Your task to perform on an android device: find photos in the google photos app Image 0: 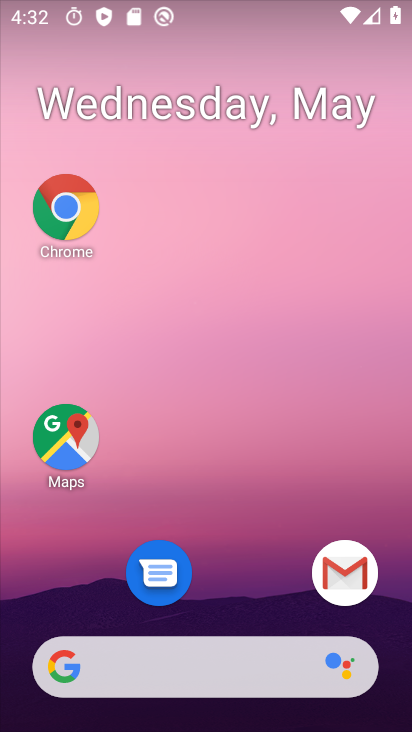
Step 0: drag from (283, 687) to (309, 18)
Your task to perform on an android device: find photos in the google photos app Image 1: 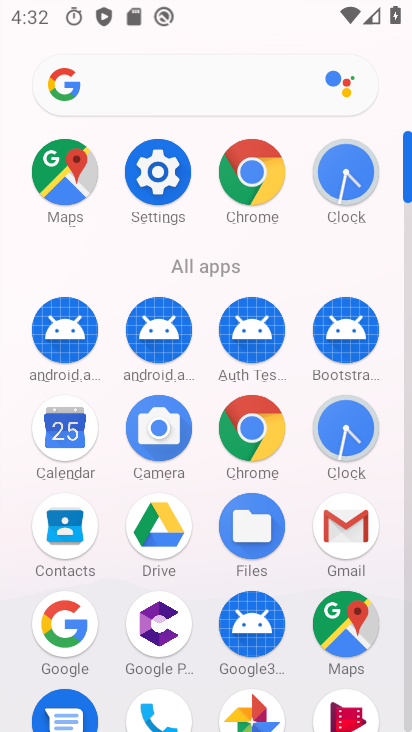
Step 1: drag from (212, 405) to (250, 349)
Your task to perform on an android device: find photos in the google photos app Image 2: 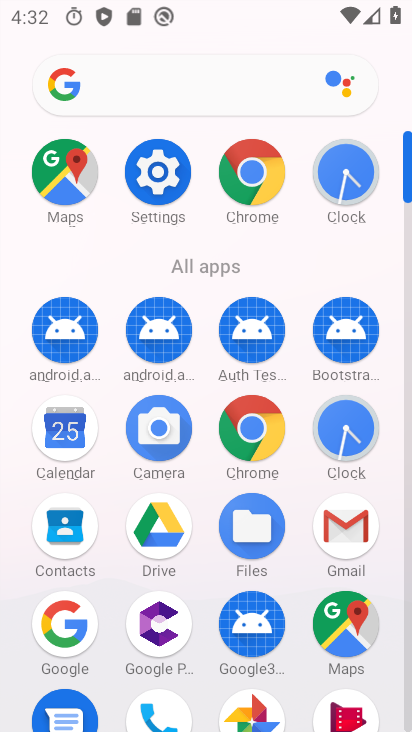
Step 2: drag from (274, 454) to (266, 371)
Your task to perform on an android device: find photos in the google photos app Image 3: 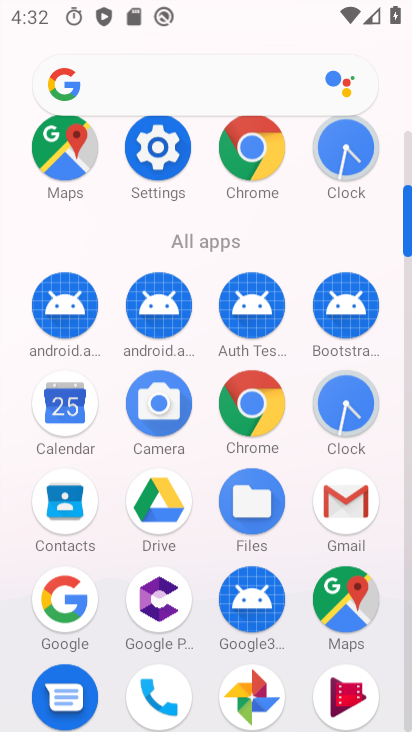
Step 3: drag from (295, 521) to (247, 317)
Your task to perform on an android device: find photos in the google photos app Image 4: 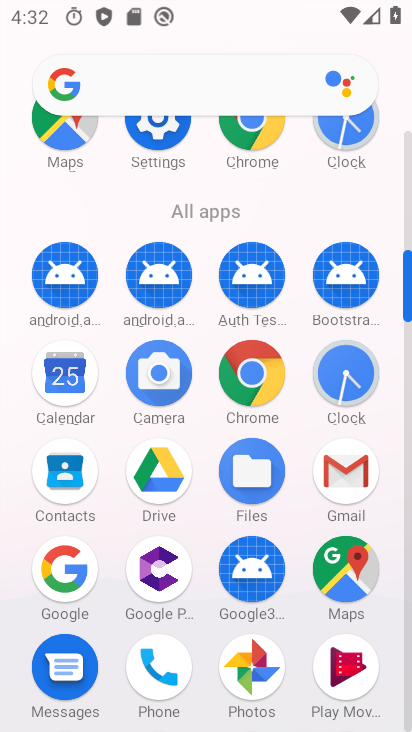
Step 4: click (253, 697)
Your task to perform on an android device: find photos in the google photos app Image 5: 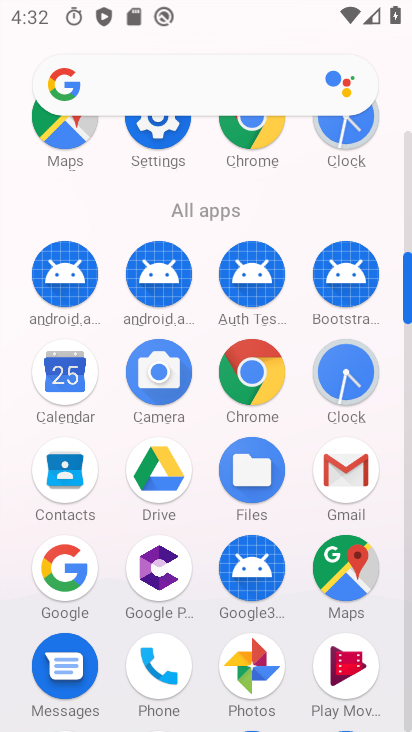
Step 5: click (227, 668)
Your task to perform on an android device: find photos in the google photos app Image 6: 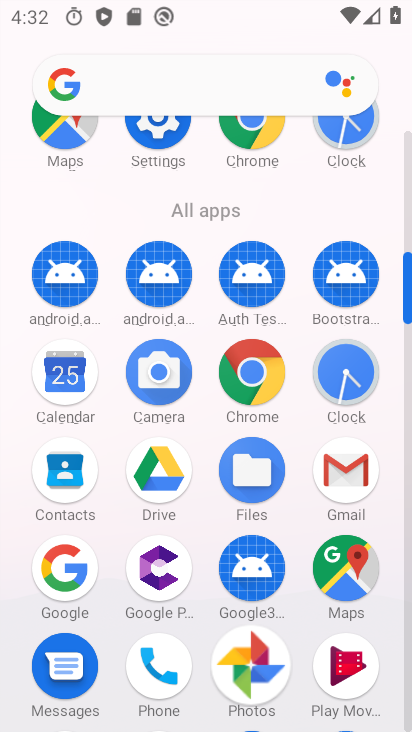
Step 6: click (235, 653)
Your task to perform on an android device: find photos in the google photos app Image 7: 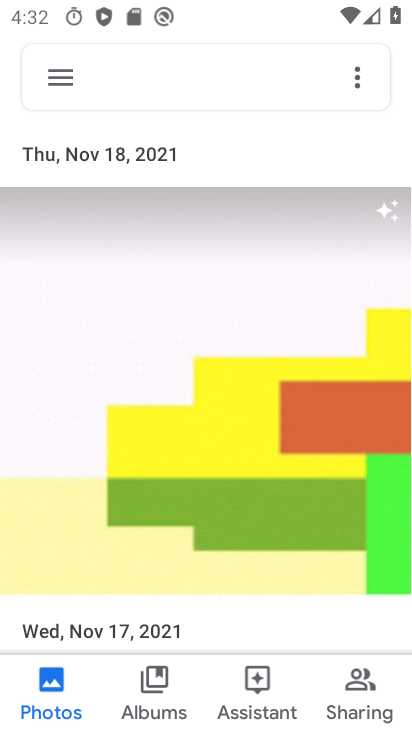
Step 7: click (241, 652)
Your task to perform on an android device: find photos in the google photos app Image 8: 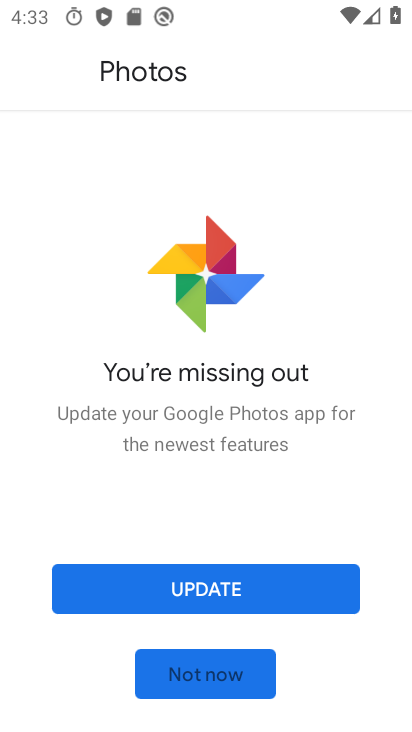
Step 8: click (222, 678)
Your task to perform on an android device: find photos in the google photos app Image 9: 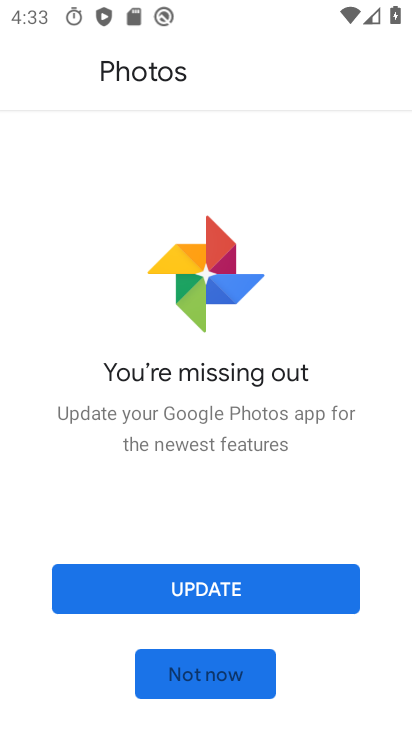
Step 9: click (222, 678)
Your task to perform on an android device: find photos in the google photos app Image 10: 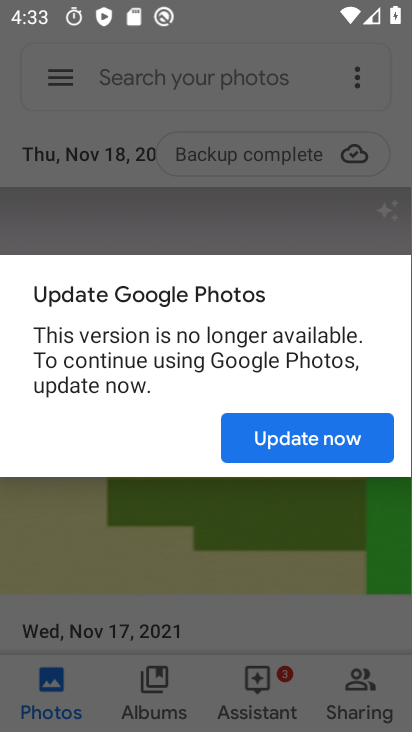
Step 10: click (222, 678)
Your task to perform on an android device: find photos in the google photos app Image 11: 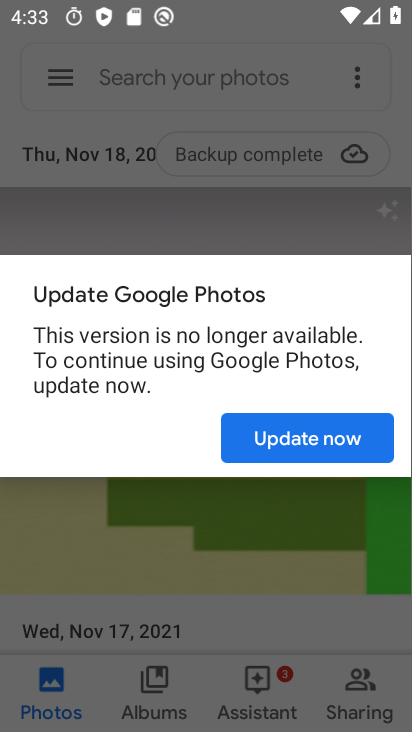
Step 11: click (222, 676)
Your task to perform on an android device: find photos in the google photos app Image 12: 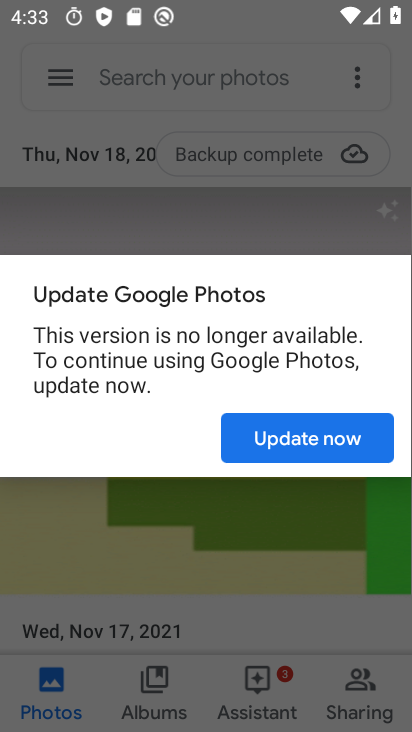
Step 12: click (301, 444)
Your task to perform on an android device: find photos in the google photos app Image 13: 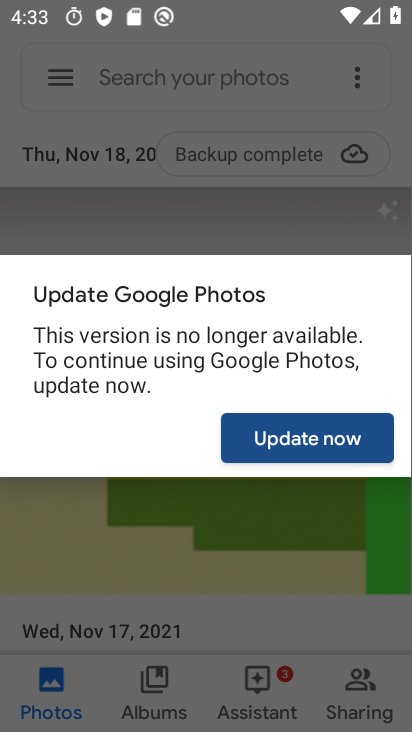
Step 13: click (321, 443)
Your task to perform on an android device: find photos in the google photos app Image 14: 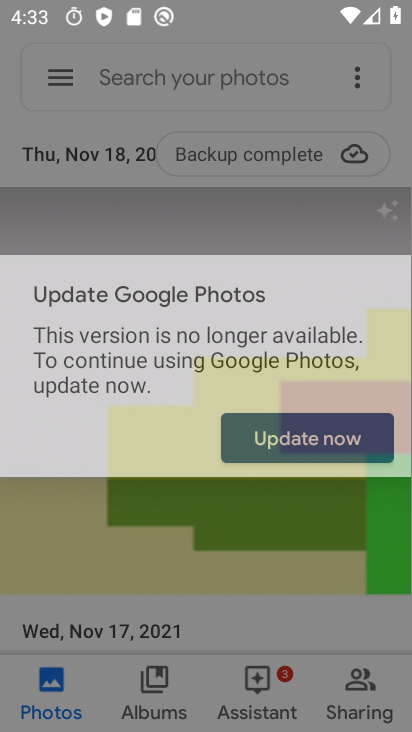
Step 14: click (320, 441)
Your task to perform on an android device: find photos in the google photos app Image 15: 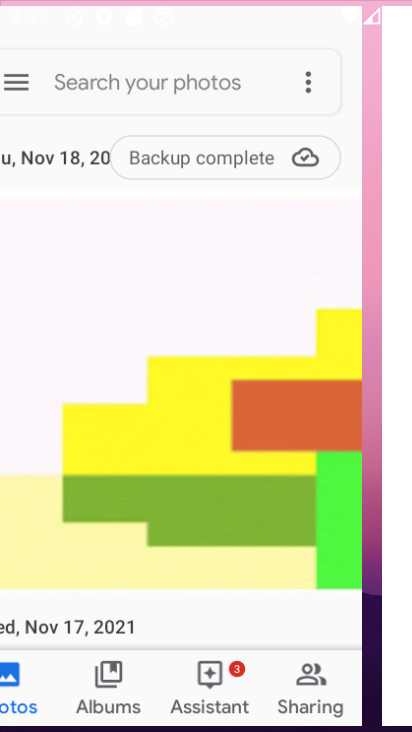
Step 15: click (316, 426)
Your task to perform on an android device: find photos in the google photos app Image 16: 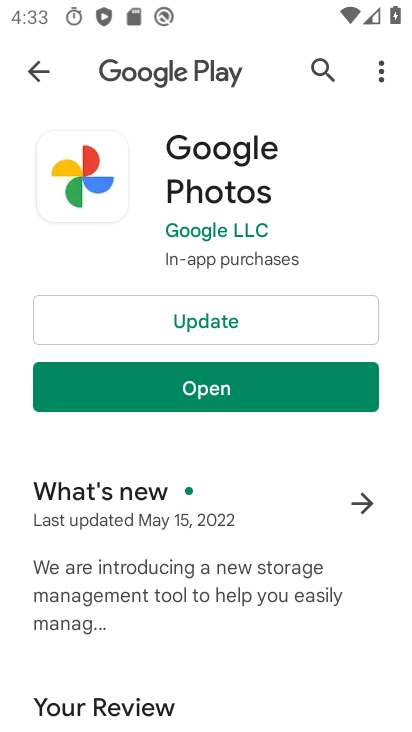
Step 16: click (217, 320)
Your task to perform on an android device: find photos in the google photos app Image 17: 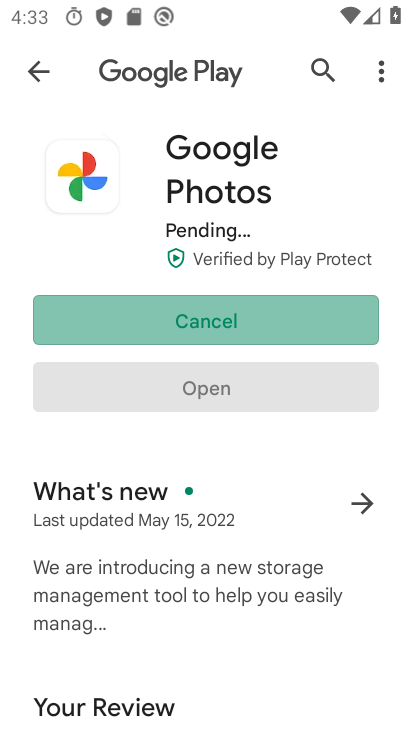
Step 17: click (217, 320)
Your task to perform on an android device: find photos in the google photos app Image 18: 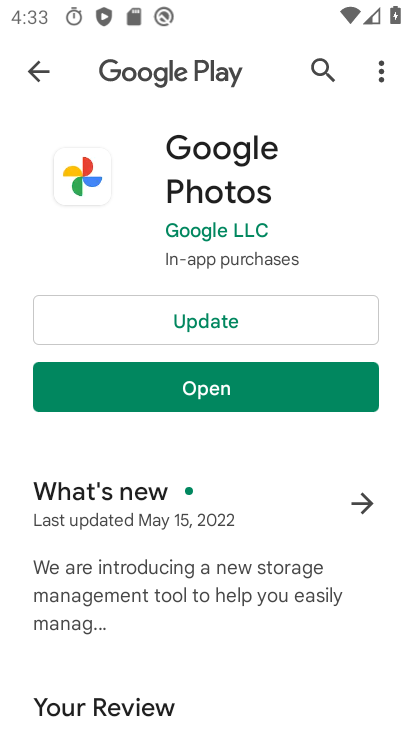
Step 18: click (217, 320)
Your task to perform on an android device: find photos in the google photos app Image 19: 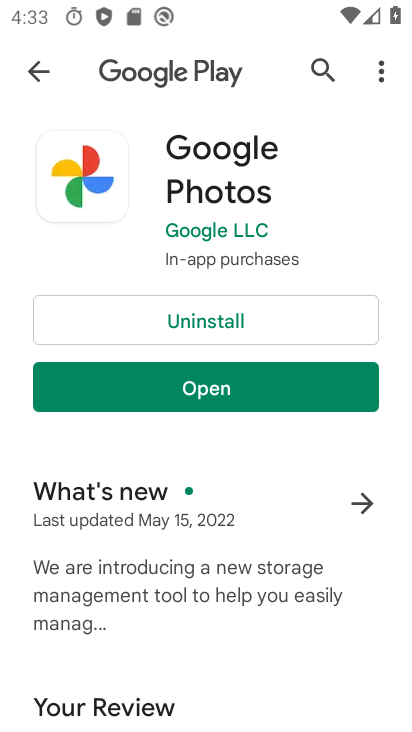
Step 19: click (226, 376)
Your task to perform on an android device: find photos in the google photos app Image 20: 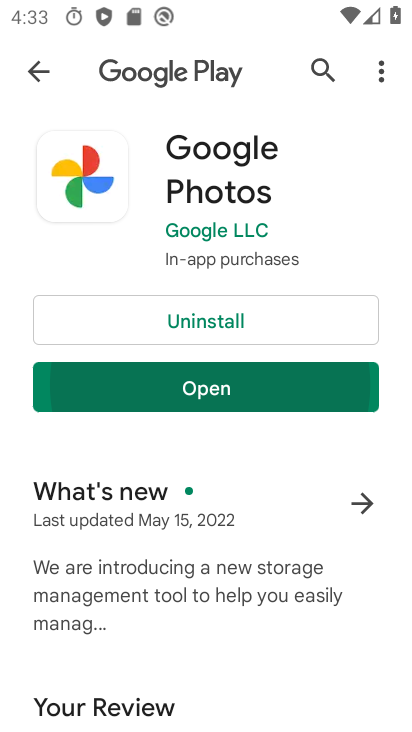
Step 20: click (226, 376)
Your task to perform on an android device: find photos in the google photos app Image 21: 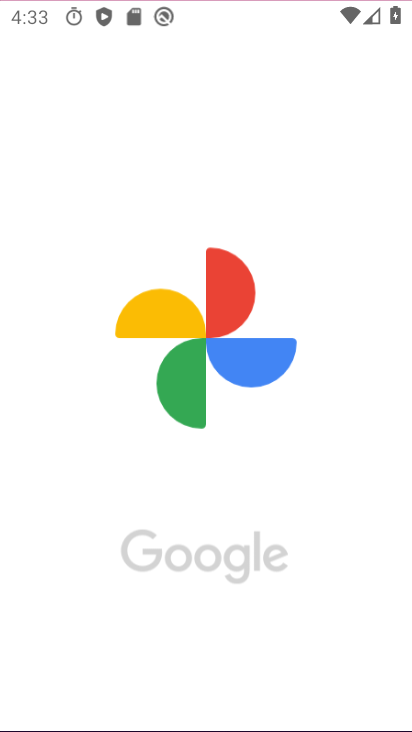
Step 21: click (227, 376)
Your task to perform on an android device: find photos in the google photos app Image 22: 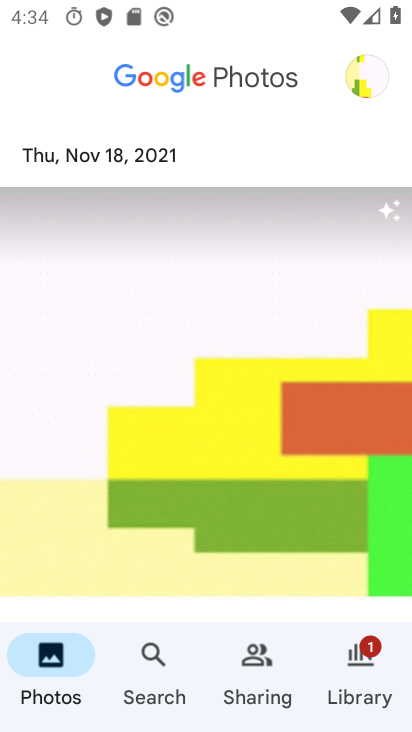
Step 22: task complete